Your task to perform on an android device: Search for vegetarian restaurants on Maps Image 0: 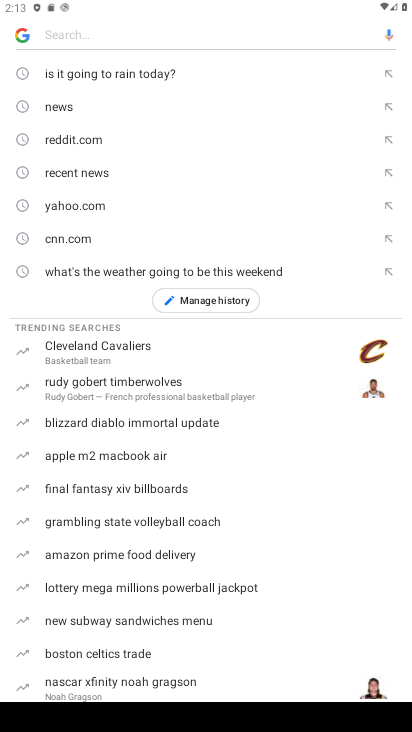
Step 0: press home button
Your task to perform on an android device: Search for vegetarian restaurants on Maps Image 1: 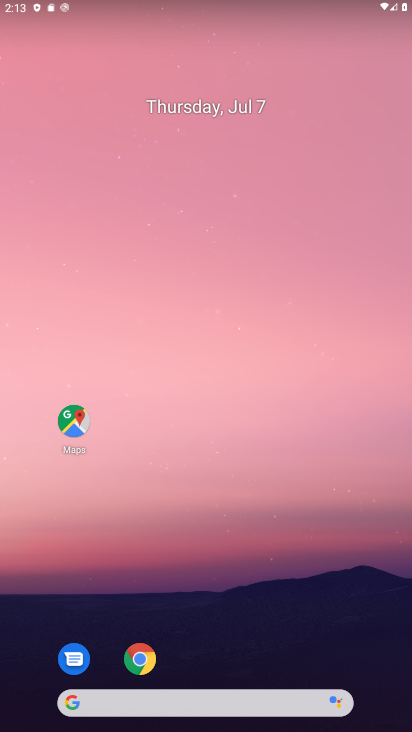
Step 1: click (67, 409)
Your task to perform on an android device: Search for vegetarian restaurants on Maps Image 2: 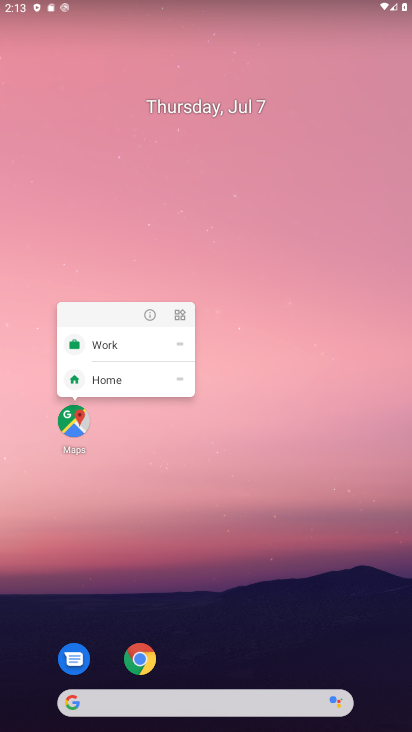
Step 2: click (72, 420)
Your task to perform on an android device: Search for vegetarian restaurants on Maps Image 3: 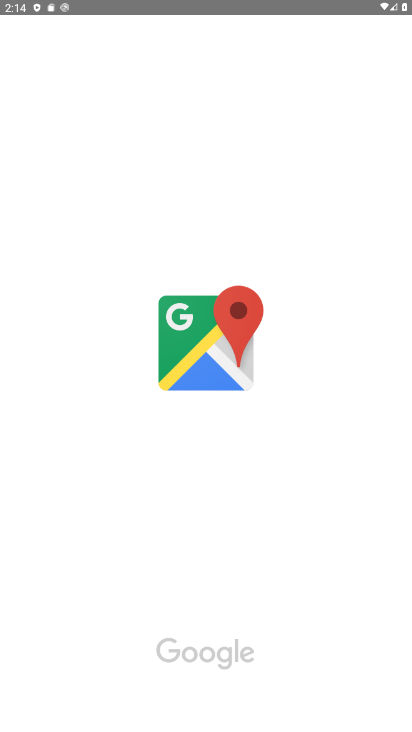
Step 3: task complete